Your task to perform on an android device: open a new tab in the chrome app Image 0: 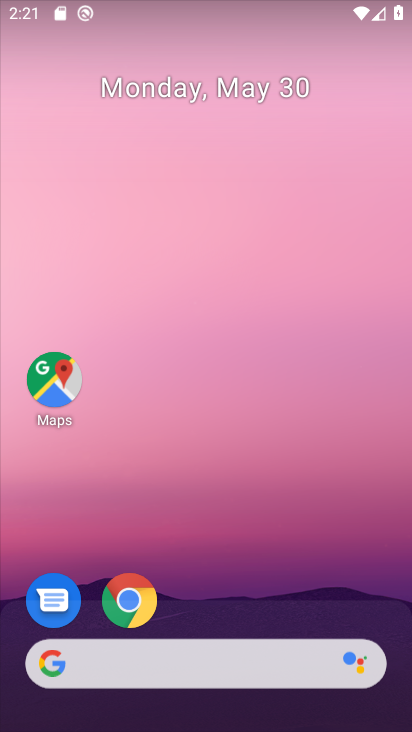
Step 0: click (137, 619)
Your task to perform on an android device: open a new tab in the chrome app Image 1: 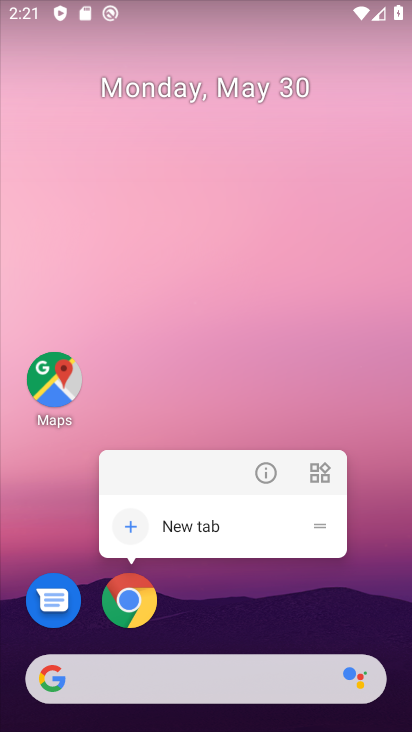
Step 1: click (121, 580)
Your task to perform on an android device: open a new tab in the chrome app Image 2: 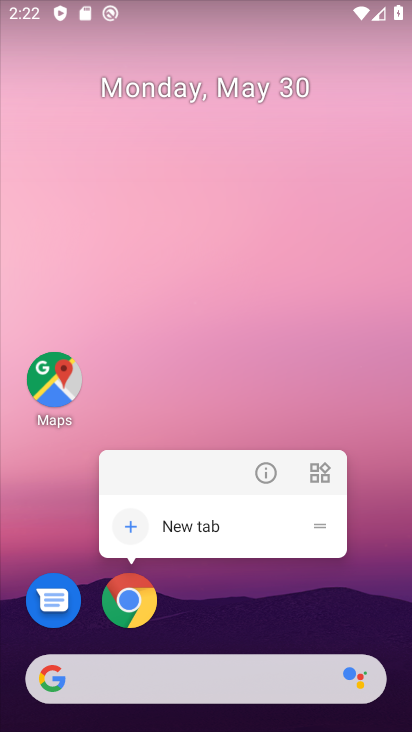
Step 2: click (123, 604)
Your task to perform on an android device: open a new tab in the chrome app Image 3: 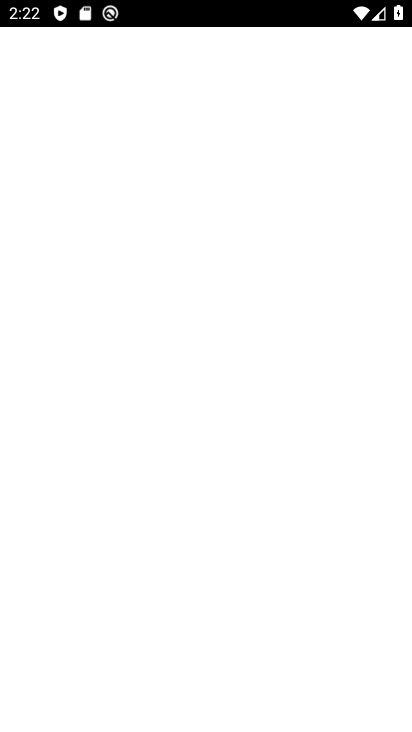
Step 3: click (141, 624)
Your task to perform on an android device: open a new tab in the chrome app Image 4: 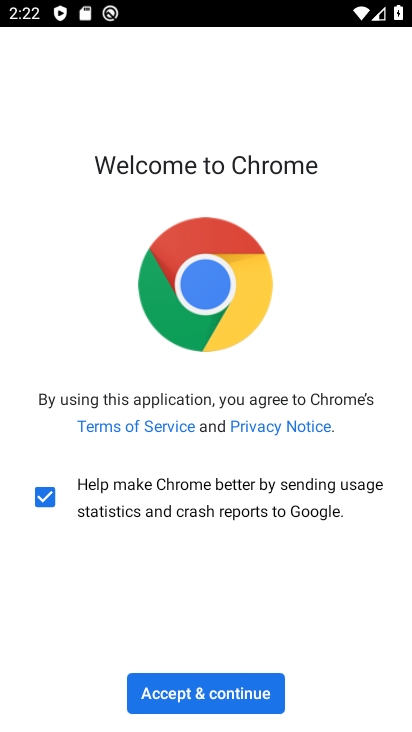
Step 4: click (255, 707)
Your task to perform on an android device: open a new tab in the chrome app Image 5: 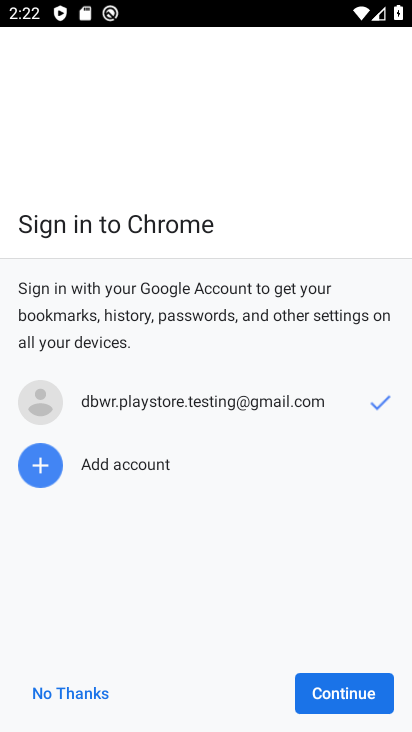
Step 5: click (297, 706)
Your task to perform on an android device: open a new tab in the chrome app Image 6: 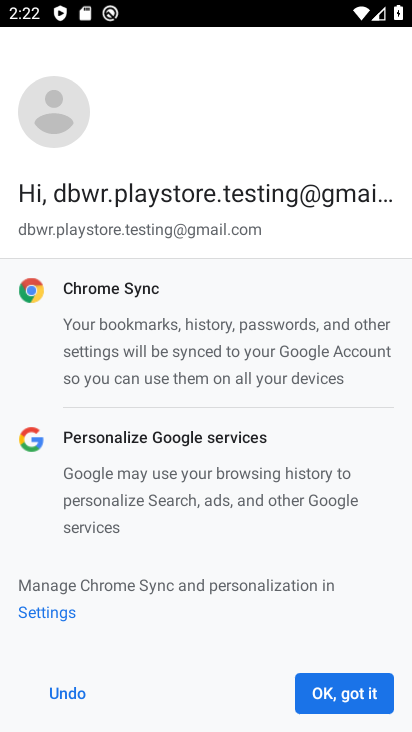
Step 6: click (297, 706)
Your task to perform on an android device: open a new tab in the chrome app Image 7: 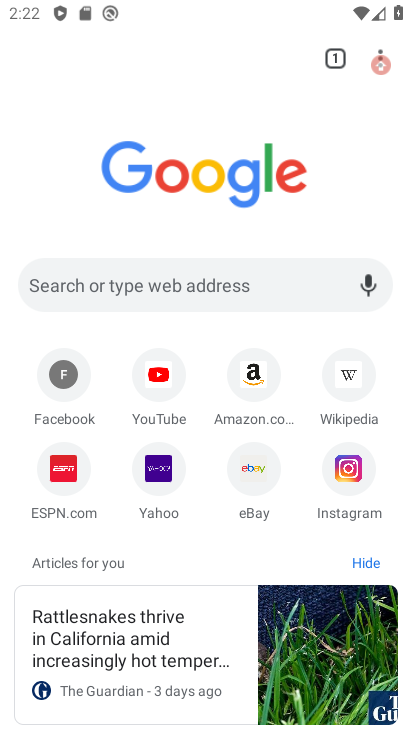
Step 7: task complete